Your task to perform on an android device: Open battery settings Image 0: 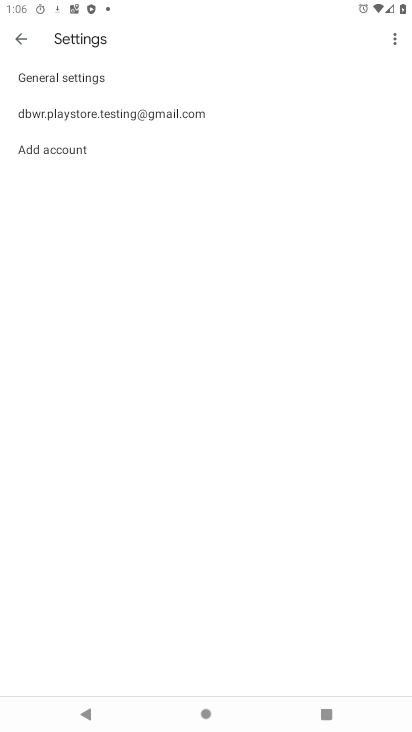
Step 0: press home button
Your task to perform on an android device: Open battery settings Image 1: 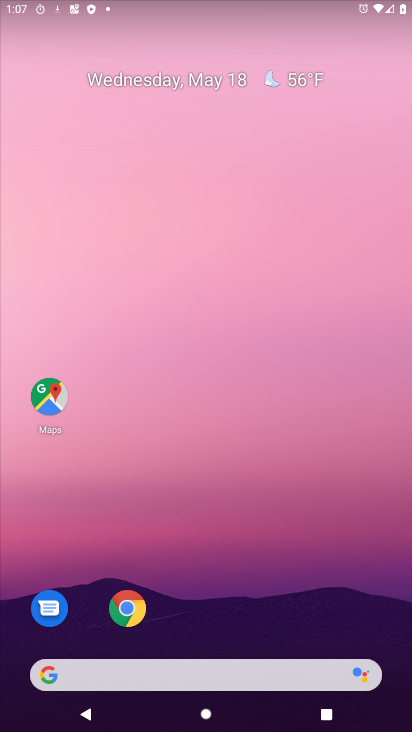
Step 1: drag from (265, 689) to (210, 239)
Your task to perform on an android device: Open battery settings Image 2: 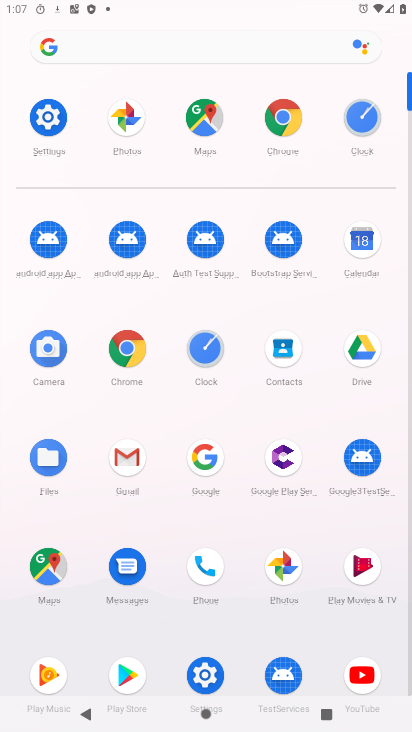
Step 2: click (216, 667)
Your task to perform on an android device: Open battery settings Image 3: 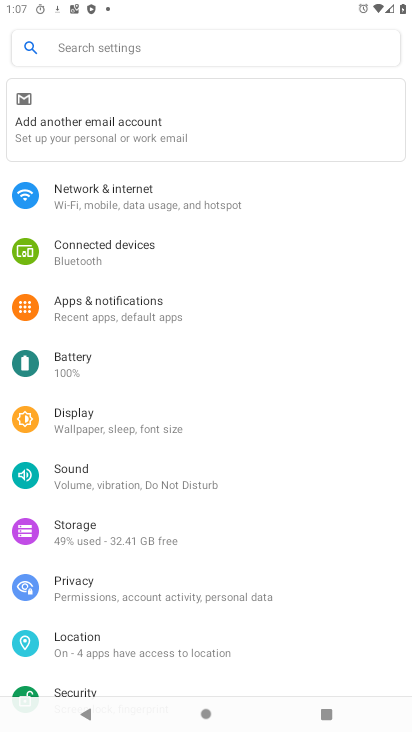
Step 3: click (165, 355)
Your task to perform on an android device: Open battery settings Image 4: 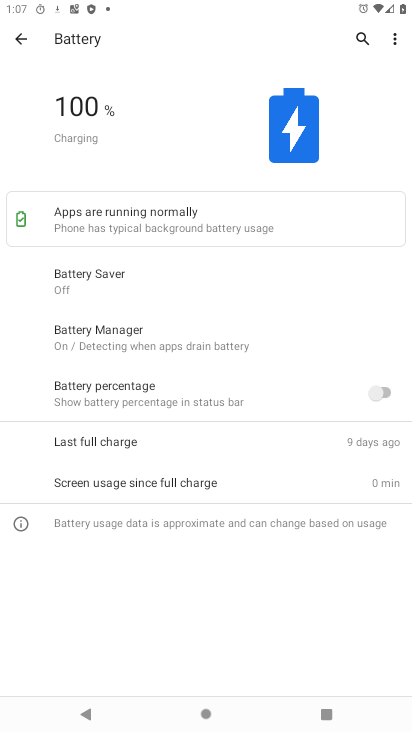
Step 4: task complete